Your task to perform on an android device: set the timer Image 0: 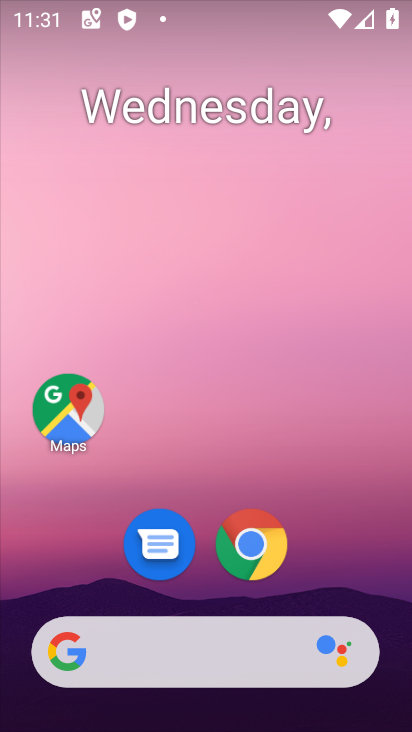
Step 0: drag from (274, 692) to (231, 152)
Your task to perform on an android device: set the timer Image 1: 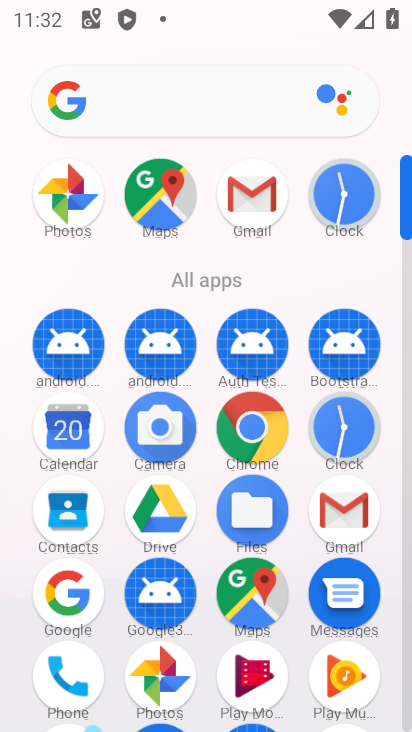
Step 1: click (339, 207)
Your task to perform on an android device: set the timer Image 2: 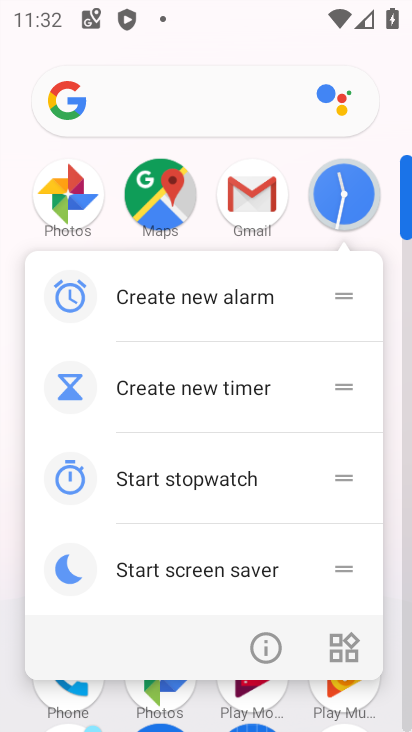
Step 2: click (339, 207)
Your task to perform on an android device: set the timer Image 3: 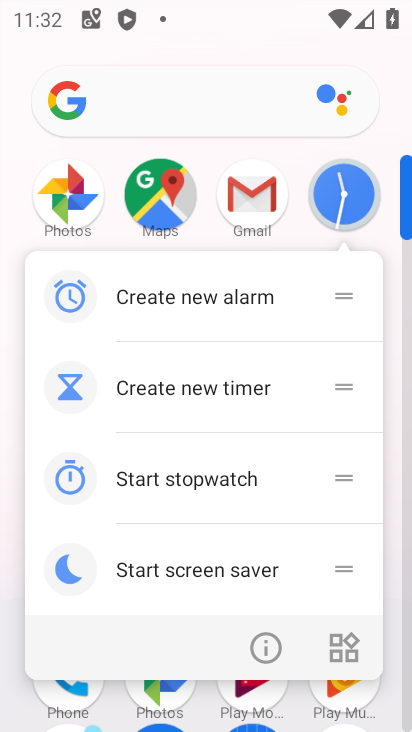
Step 3: click (339, 207)
Your task to perform on an android device: set the timer Image 4: 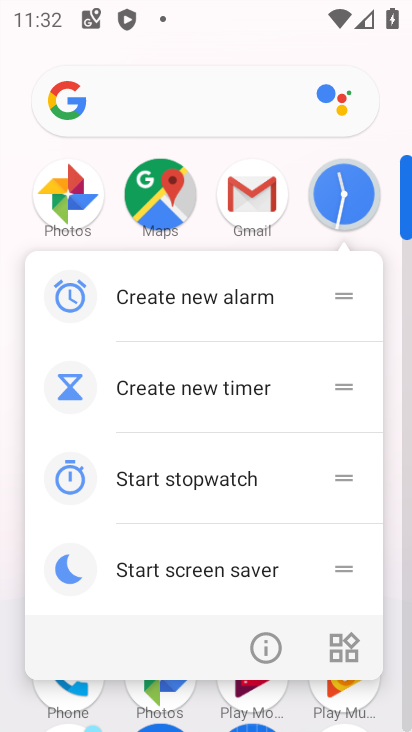
Step 4: click (339, 207)
Your task to perform on an android device: set the timer Image 5: 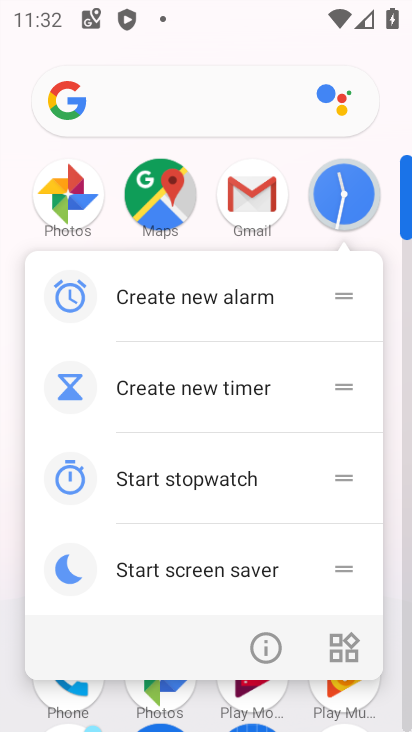
Step 5: click (348, 193)
Your task to perform on an android device: set the timer Image 6: 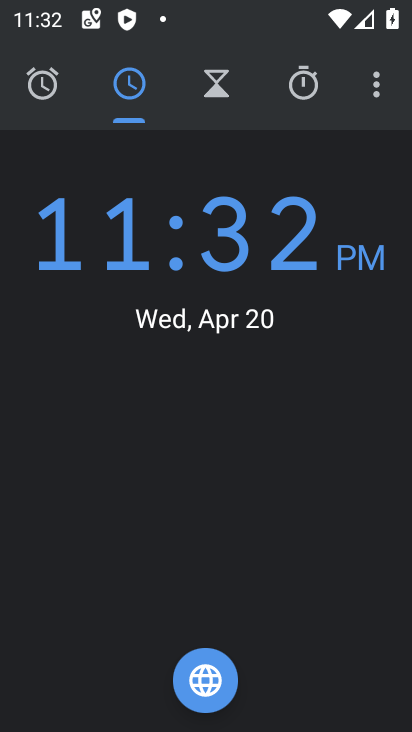
Step 6: click (227, 101)
Your task to perform on an android device: set the timer Image 7: 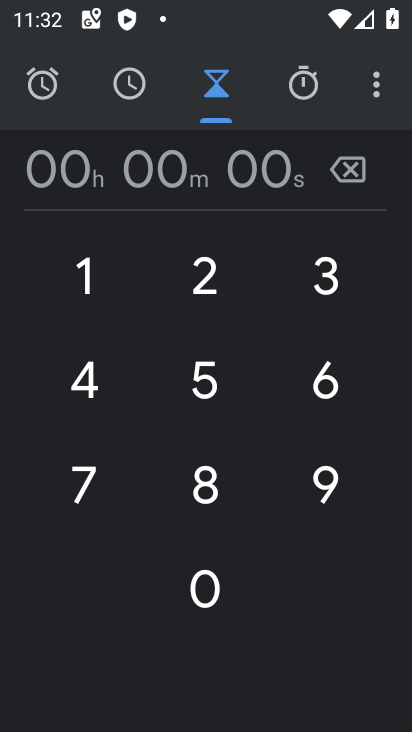
Step 7: click (94, 398)
Your task to perform on an android device: set the timer Image 8: 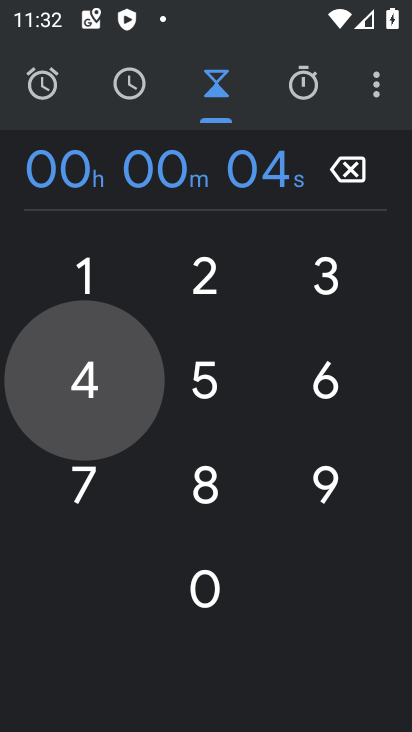
Step 8: click (239, 383)
Your task to perform on an android device: set the timer Image 9: 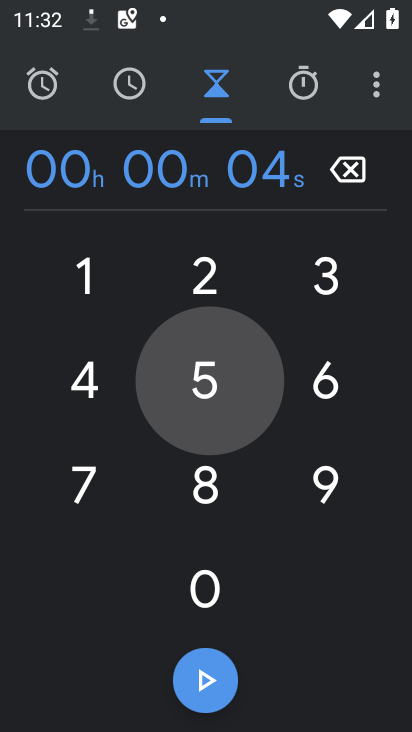
Step 9: click (229, 438)
Your task to perform on an android device: set the timer Image 10: 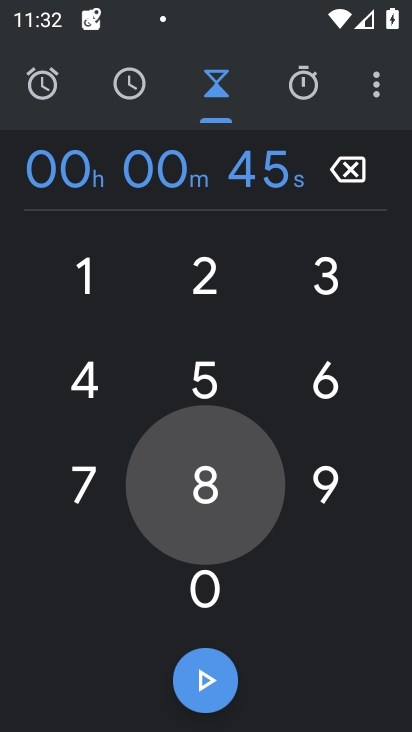
Step 10: click (198, 289)
Your task to perform on an android device: set the timer Image 11: 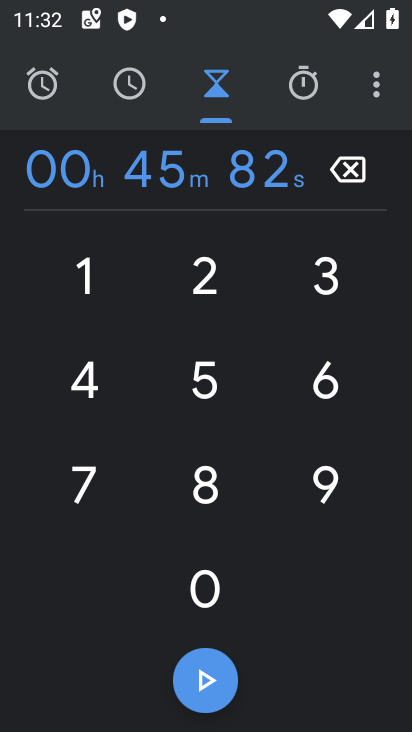
Step 11: click (218, 484)
Your task to perform on an android device: set the timer Image 12: 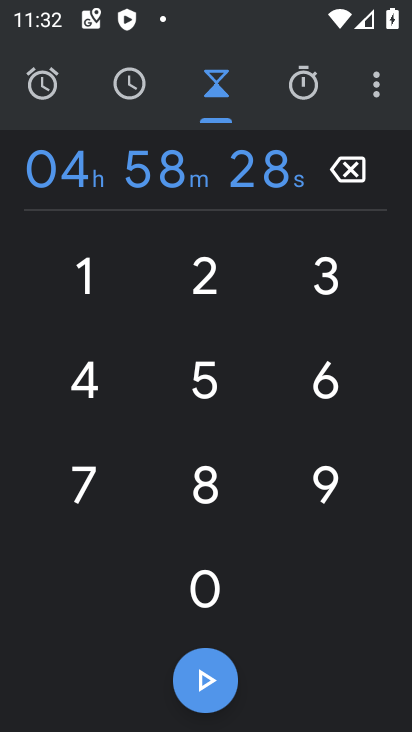
Step 12: click (210, 667)
Your task to perform on an android device: set the timer Image 13: 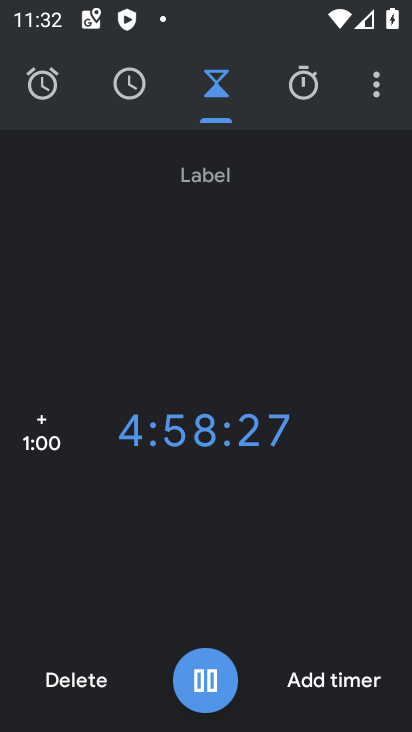
Step 13: task complete